Your task to perform on an android device: Check the news Image 0: 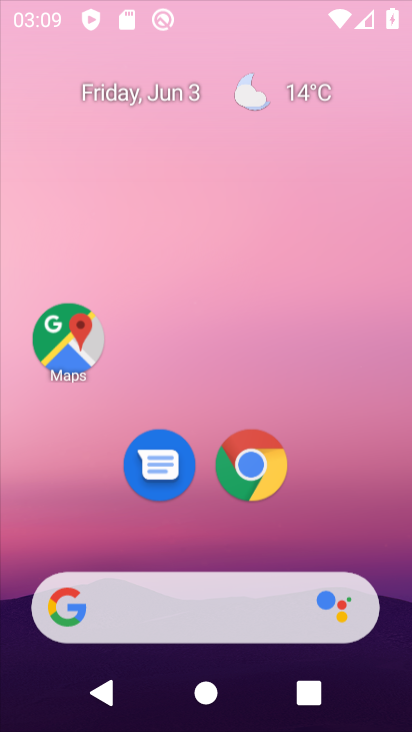
Step 0: press home button
Your task to perform on an android device: Check the news Image 1: 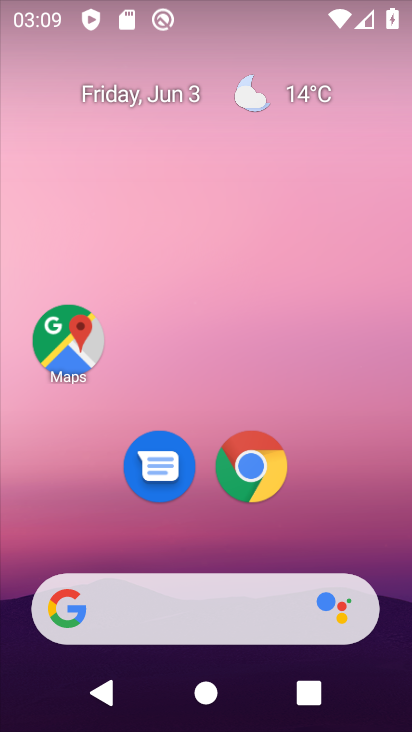
Step 1: task complete